Your task to perform on an android device: toggle translation in the chrome app Image 0: 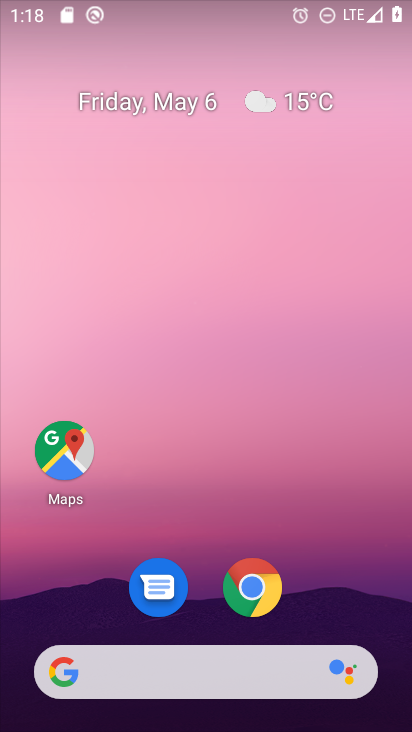
Step 0: click (258, 594)
Your task to perform on an android device: toggle translation in the chrome app Image 1: 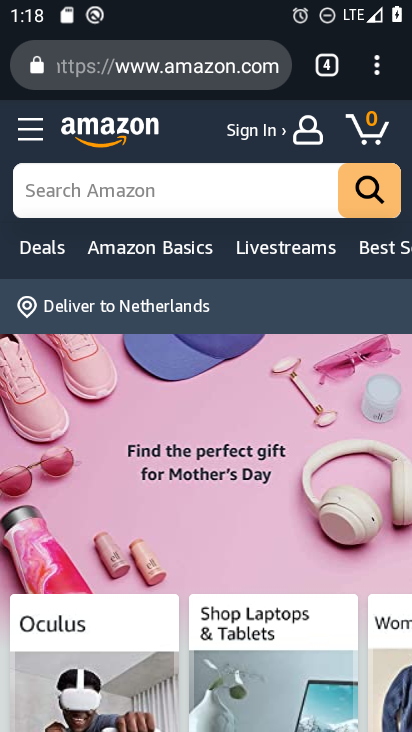
Step 1: click (391, 61)
Your task to perform on an android device: toggle translation in the chrome app Image 2: 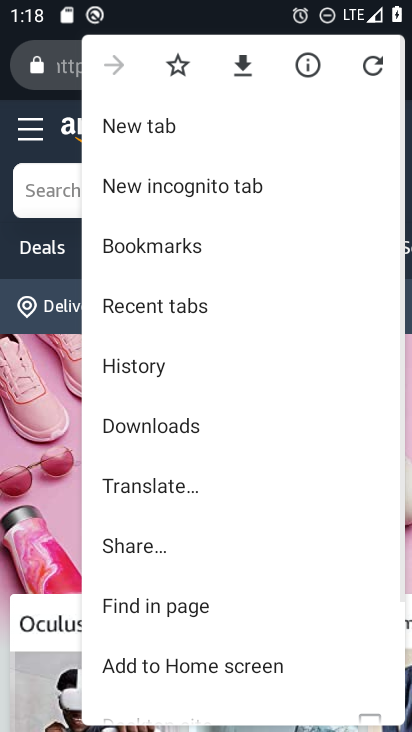
Step 2: drag from (216, 601) to (220, 214)
Your task to perform on an android device: toggle translation in the chrome app Image 3: 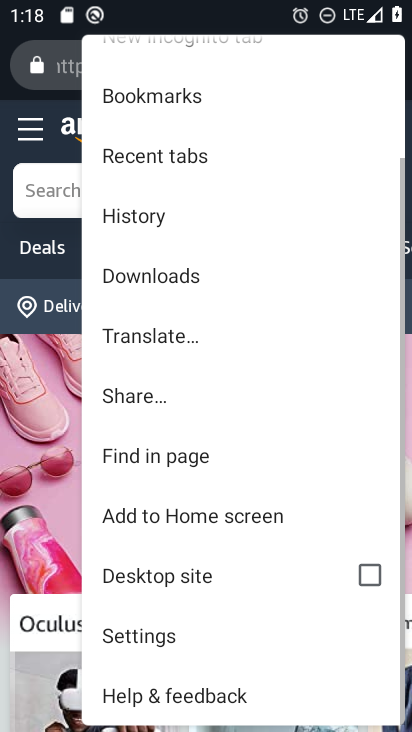
Step 3: click (146, 636)
Your task to perform on an android device: toggle translation in the chrome app Image 4: 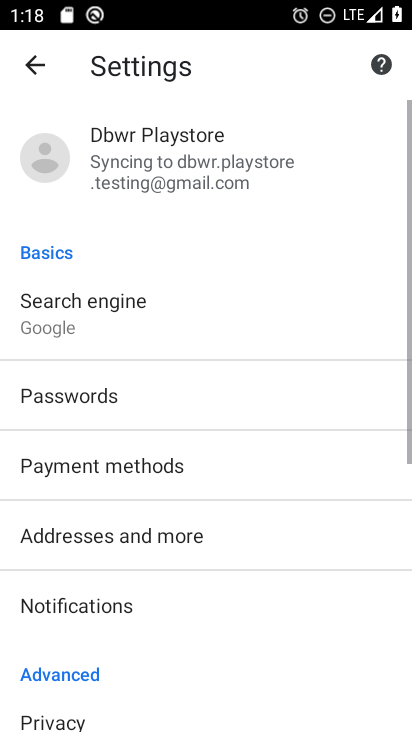
Step 4: drag from (215, 636) to (211, 95)
Your task to perform on an android device: toggle translation in the chrome app Image 5: 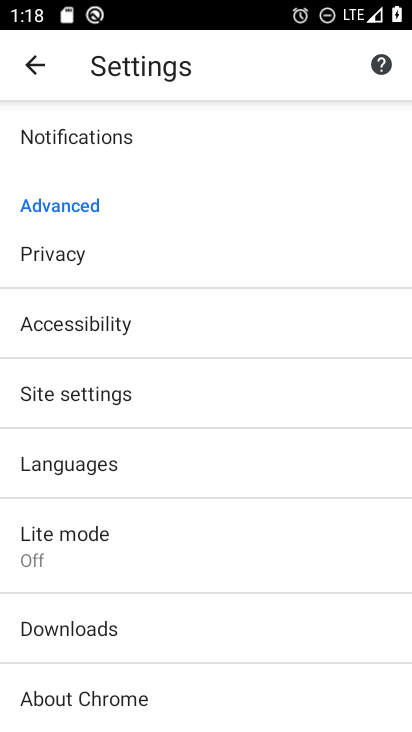
Step 5: click (135, 473)
Your task to perform on an android device: toggle translation in the chrome app Image 6: 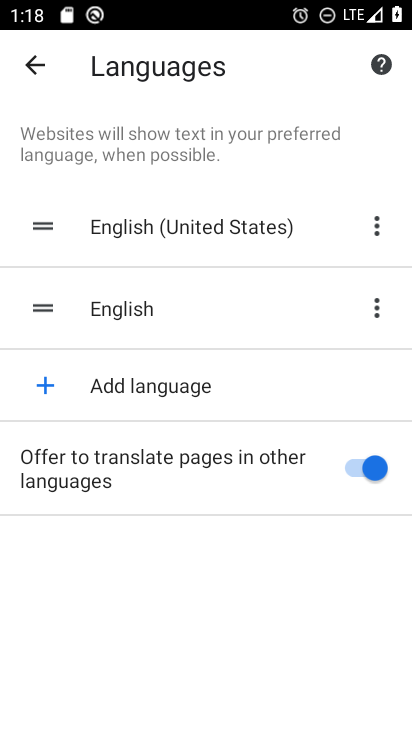
Step 6: click (376, 468)
Your task to perform on an android device: toggle translation in the chrome app Image 7: 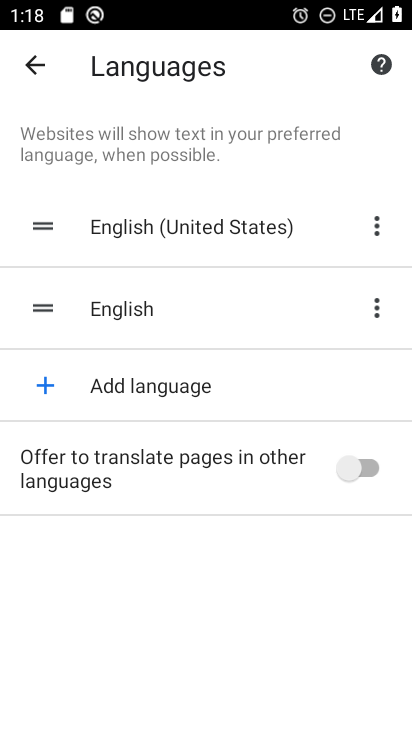
Step 7: task complete